Your task to perform on an android device: Open Google Maps Image 0: 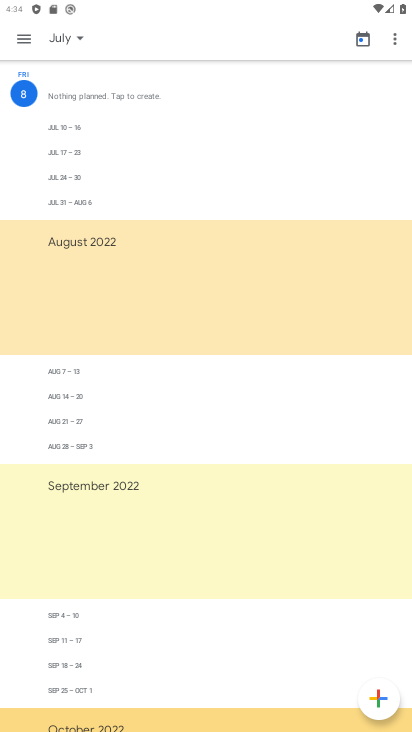
Step 0: press home button
Your task to perform on an android device: Open Google Maps Image 1: 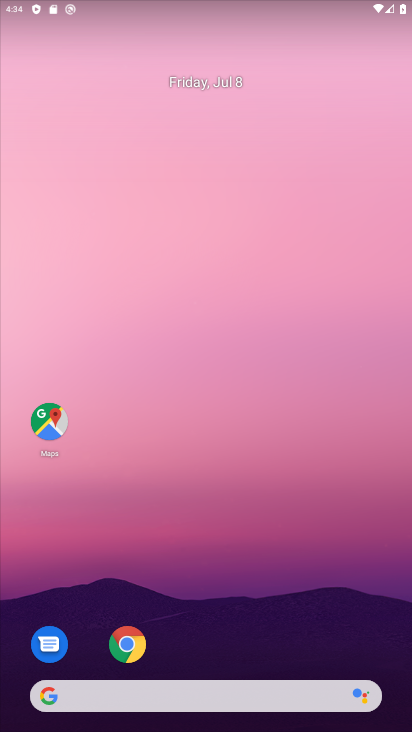
Step 1: drag from (286, 598) to (283, 90)
Your task to perform on an android device: Open Google Maps Image 2: 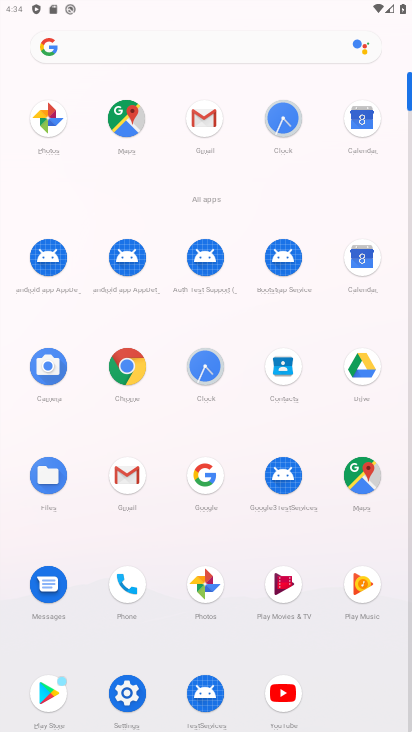
Step 2: click (362, 467)
Your task to perform on an android device: Open Google Maps Image 3: 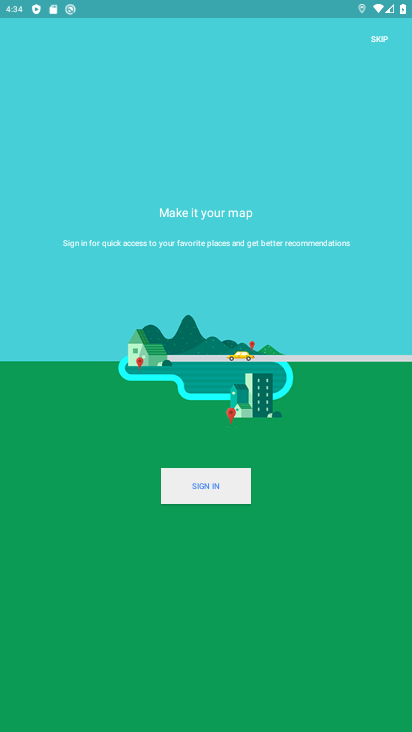
Step 3: click (389, 31)
Your task to perform on an android device: Open Google Maps Image 4: 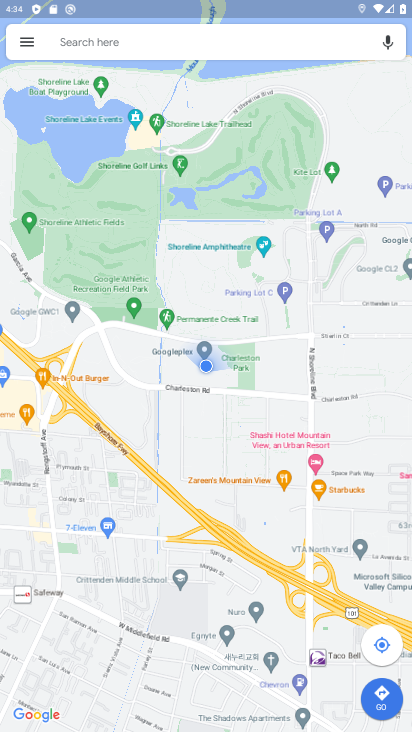
Step 4: task complete